Your task to perform on an android device: set default search engine in the chrome app Image 0: 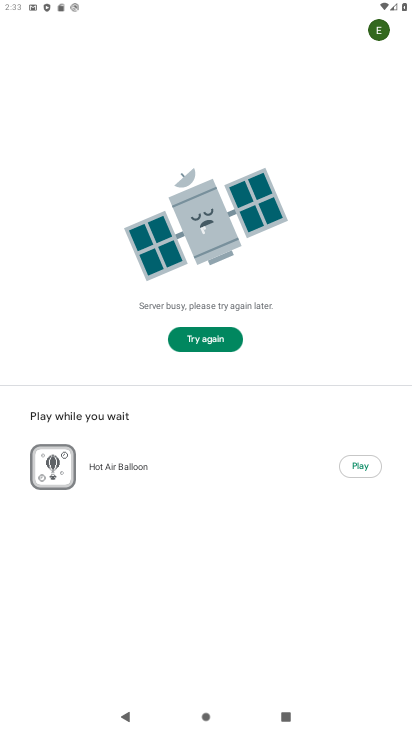
Step 0: press home button
Your task to perform on an android device: set default search engine in the chrome app Image 1: 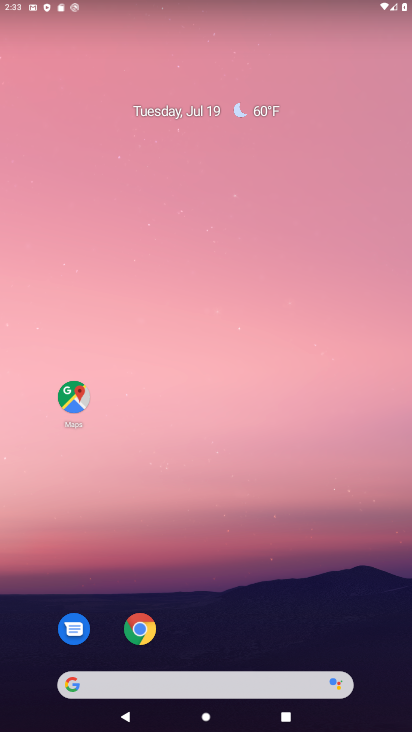
Step 1: drag from (246, 601) to (203, 191)
Your task to perform on an android device: set default search engine in the chrome app Image 2: 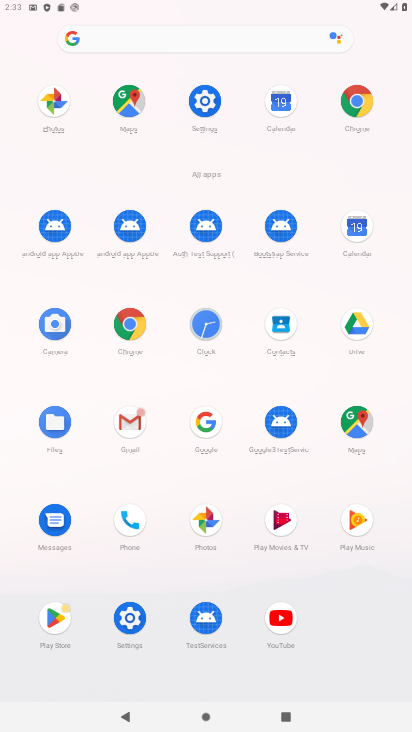
Step 2: click (129, 328)
Your task to perform on an android device: set default search engine in the chrome app Image 3: 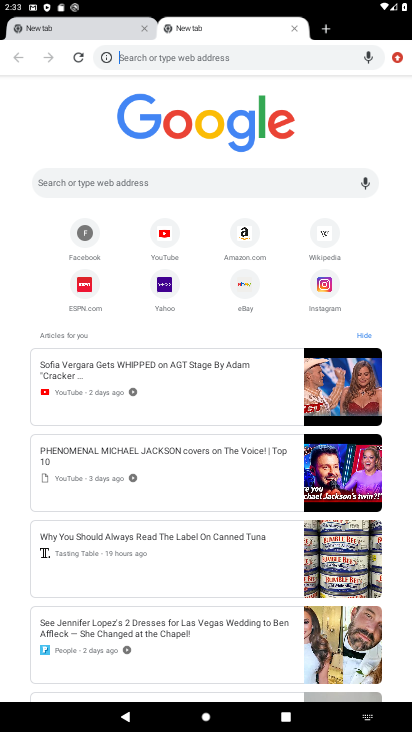
Step 3: task complete